Your task to perform on an android device: add a contact in the contacts app Image 0: 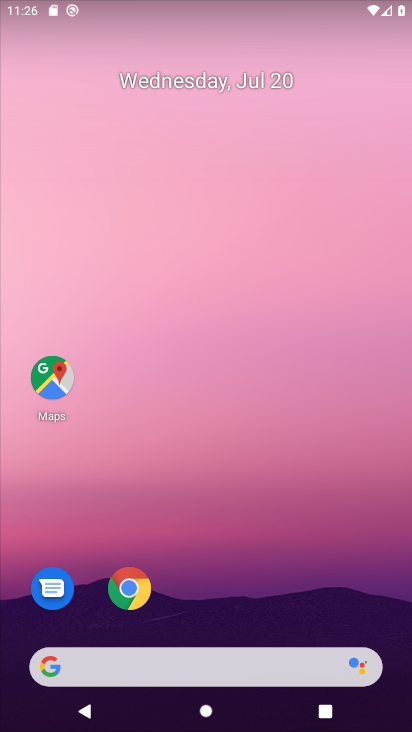
Step 0: press home button
Your task to perform on an android device: add a contact in the contacts app Image 1: 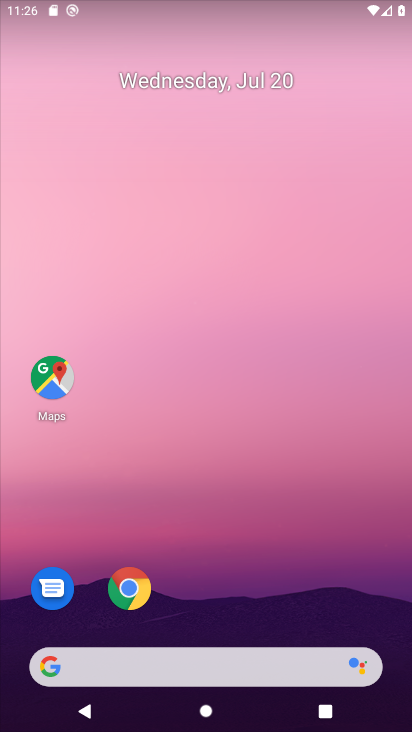
Step 1: drag from (222, 627) to (206, 97)
Your task to perform on an android device: add a contact in the contacts app Image 2: 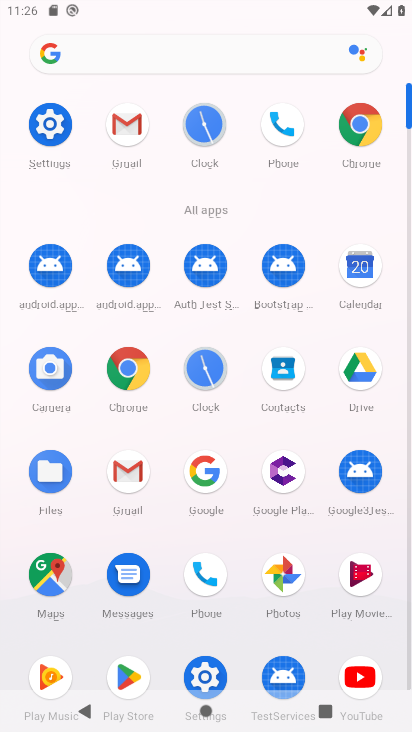
Step 2: click (283, 359)
Your task to perform on an android device: add a contact in the contacts app Image 3: 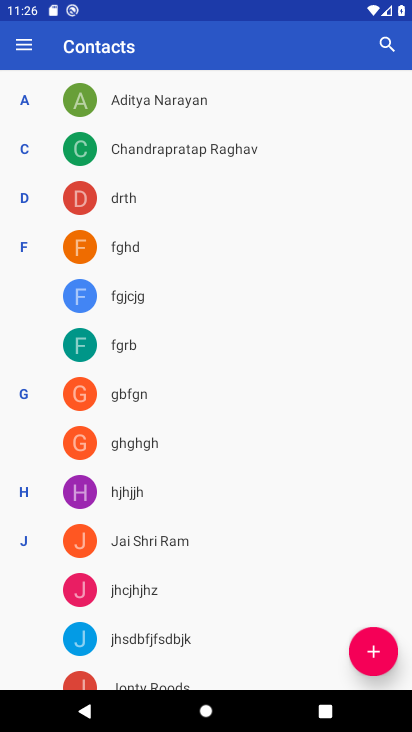
Step 3: click (372, 648)
Your task to perform on an android device: add a contact in the contacts app Image 4: 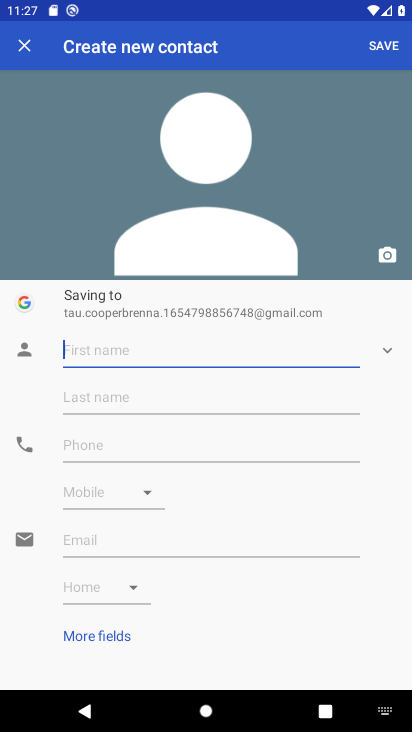
Step 4: type "aprnkt"
Your task to perform on an android device: add a contact in the contacts app Image 5: 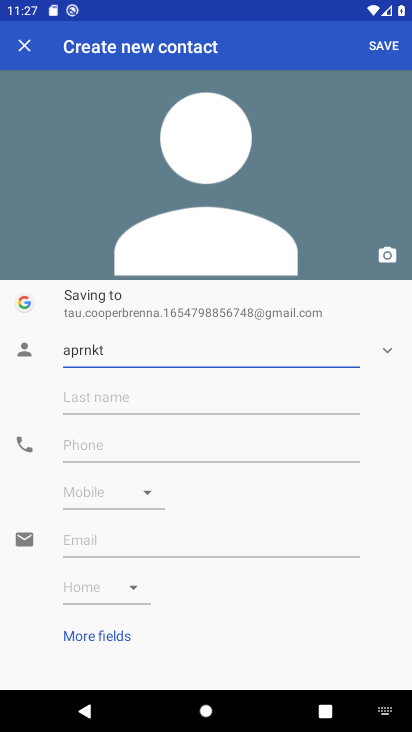
Step 5: click (383, 54)
Your task to perform on an android device: add a contact in the contacts app Image 6: 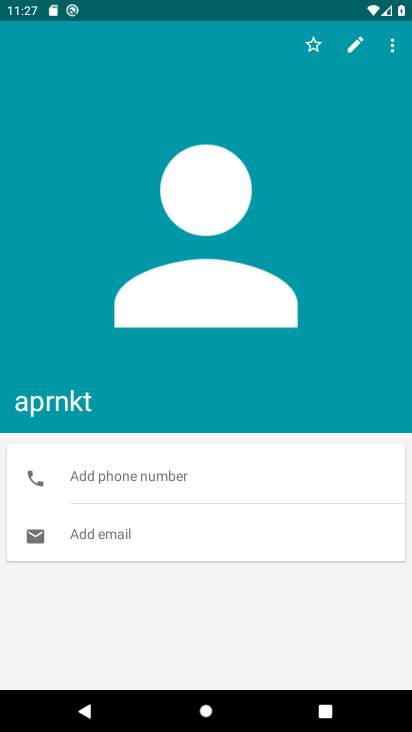
Step 6: task complete